Your task to perform on an android device: Open the Play Movies app and select the watchlist tab. Image 0: 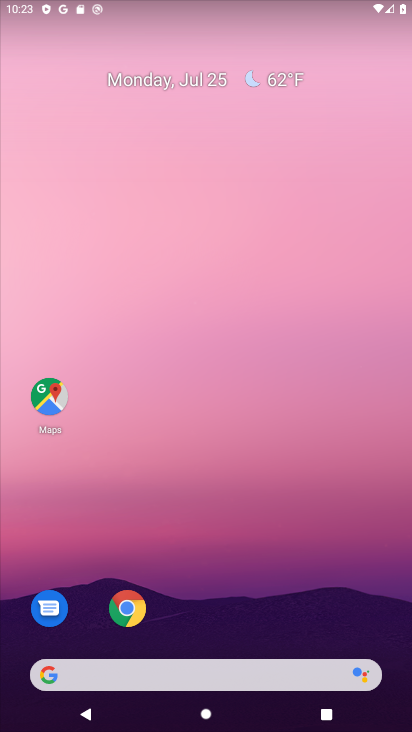
Step 0: drag from (287, 491) to (279, 46)
Your task to perform on an android device: Open the Play Movies app and select the watchlist tab. Image 1: 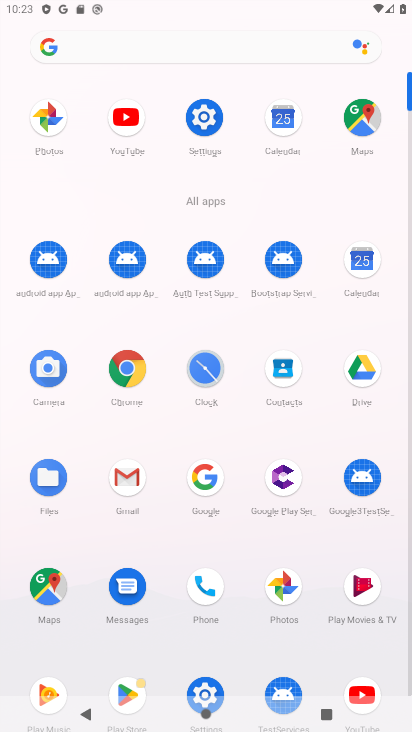
Step 1: click (358, 590)
Your task to perform on an android device: Open the Play Movies app and select the watchlist tab. Image 2: 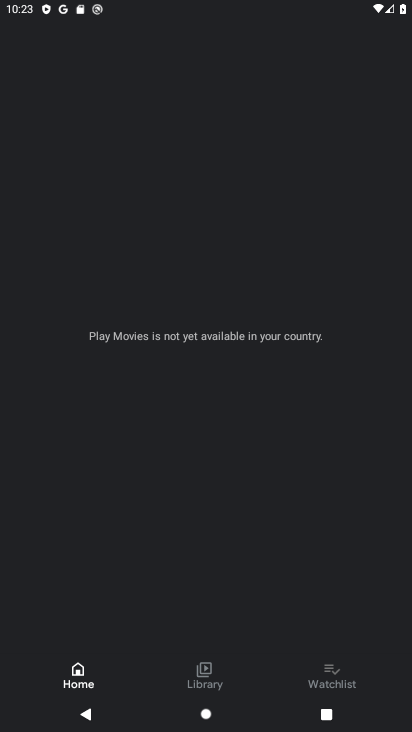
Step 2: task complete